Your task to perform on an android device: Open internet settings Image 0: 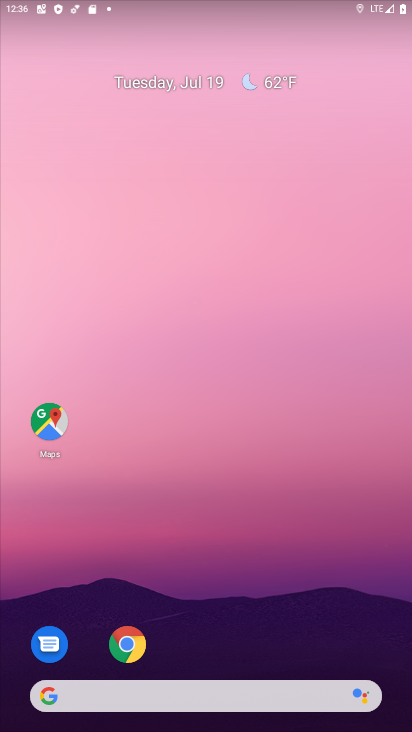
Step 0: drag from (275, 574) to (229, 57)
Your task to perform on an android device: Open internet settings Image 1: 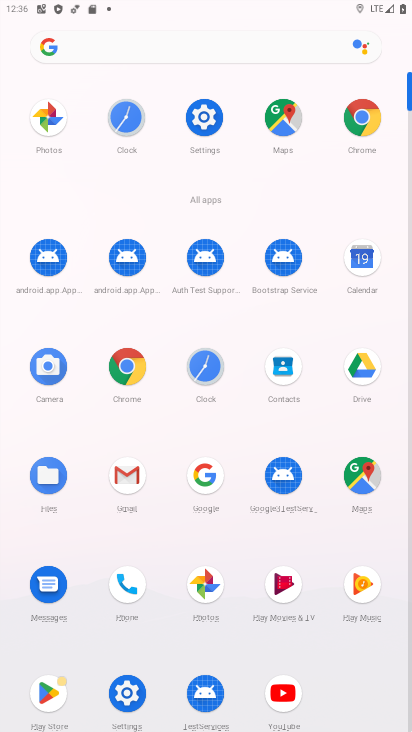
Step 1: click (202, 116)
Your task to perform on an android device: Open internet settings Image 2: 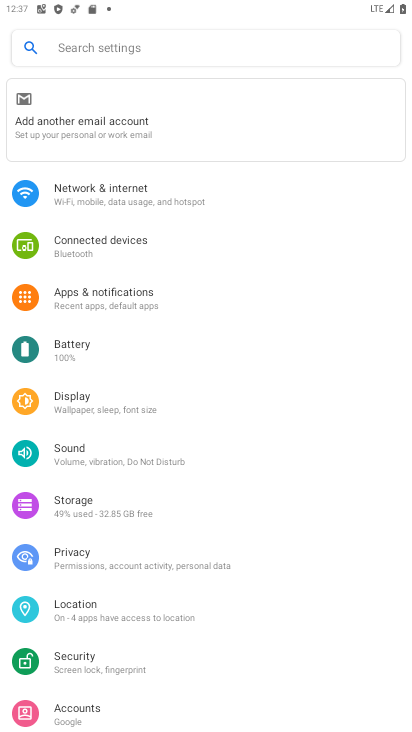
Step 2: click (123, 189)
Your task to perform on an android device: Open internet settings Image 3: 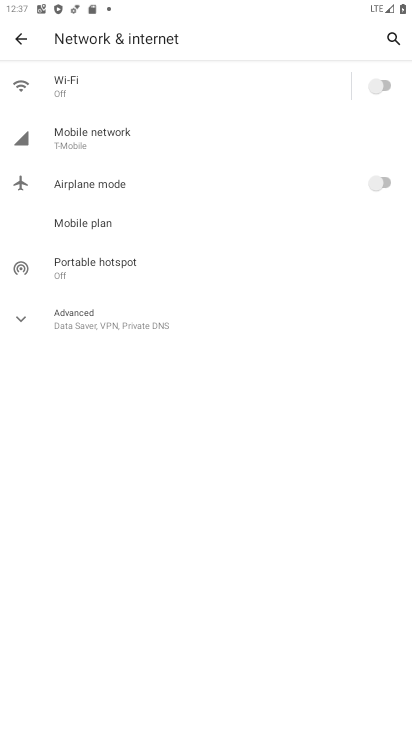
Step 3: task complete